Your task to perform on an android device: check google app version Image 0: 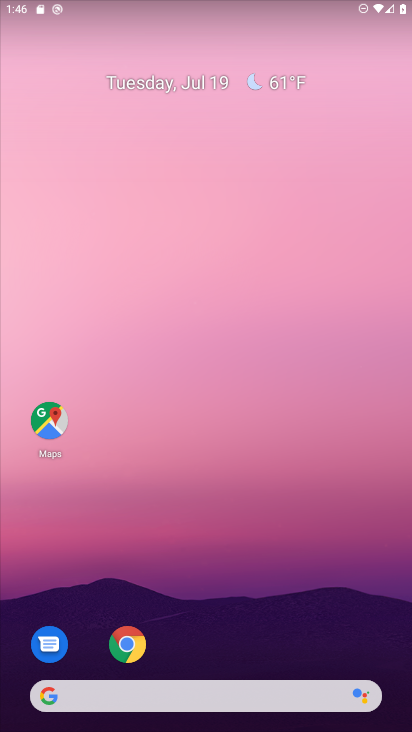
Step 0: drag from (241, 664) to (180, 127)
Your task to perform on an android device: check google app version Image 1: 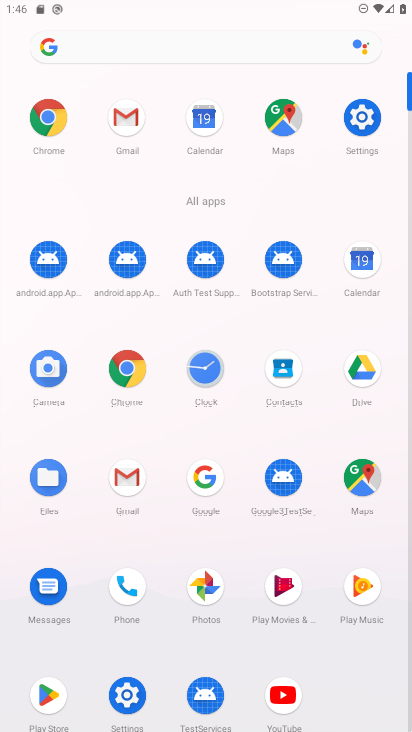
Step 1: click (204, 482)
Your task to perform on an android device: check google app version Image 2: 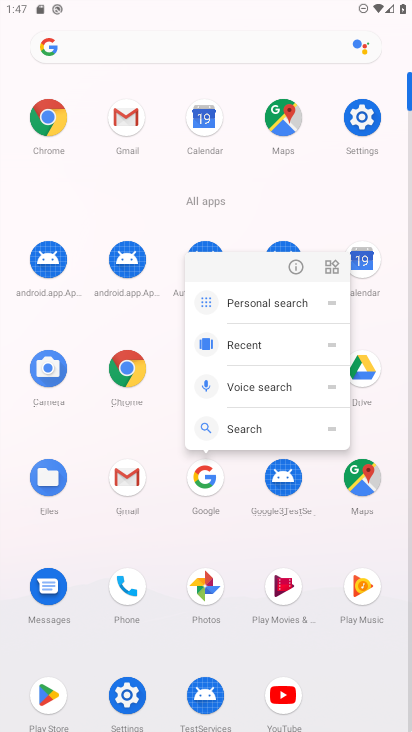
Step 2: click (297, 265)
Your task to perform on an android device: check google app version Image 3: 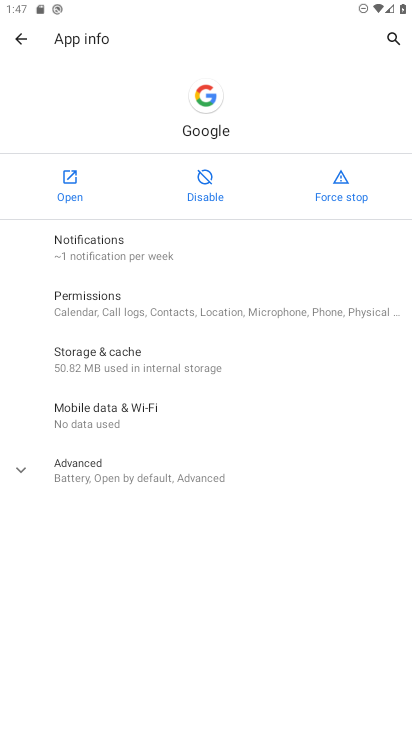
Step 3: click (59, 479)
Your task to perform on an android device: check google app version Image 4: 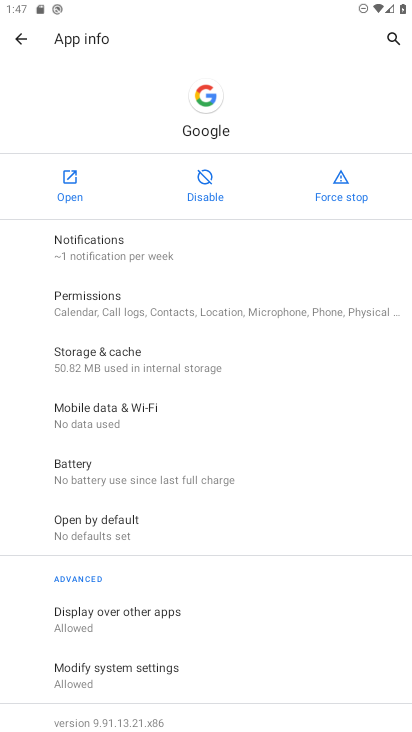
Step 4: task complete